Your task to perform on an android device: turn on data saver in the chrome app Image 0: 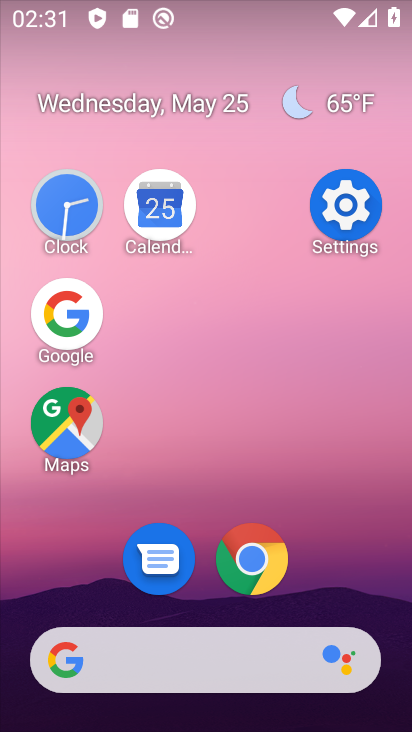
Step 0: click (280, 565)
Your task to perform on an android device: turn on data saver in the chrome app Image 1: 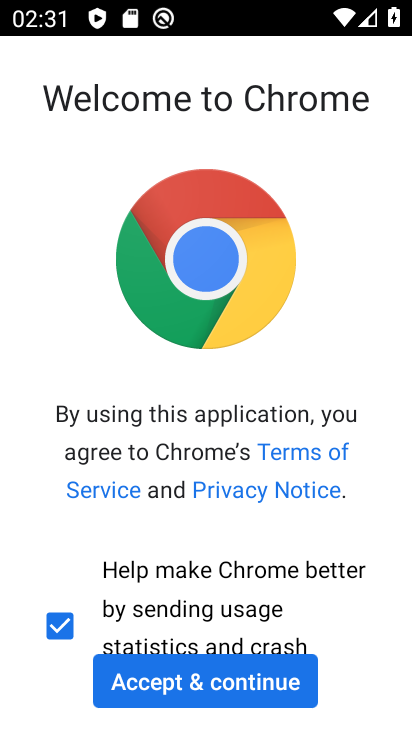
Step 1: click (268, 672)
Your task to perform on an android device: turn on data saver in the chrome app Image 2: 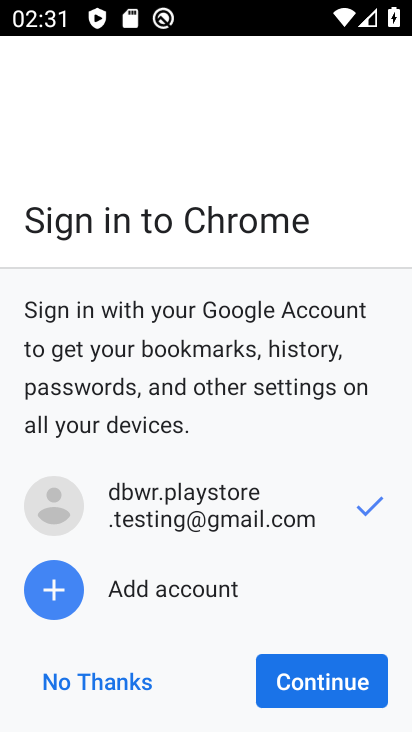
Step 2: click (347, 687)
Your task to perform on an android device: turn on data saver in the chrome app Image 3: 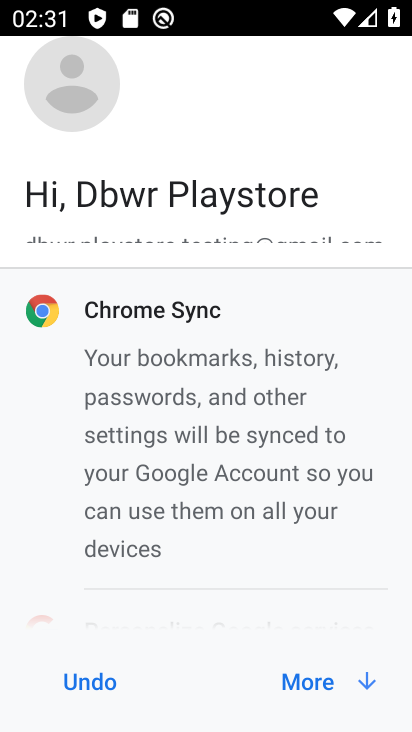
Step 3: click (338, 680)
Your task to perform on an android device: turn on data saver in the chrome app Image 4: 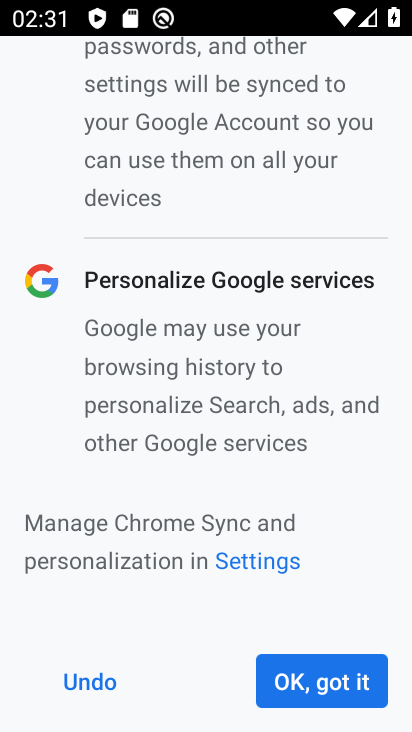
Step 4: click (338, 680)
Your task to perform on an android device: turn on data saver in the chrome app Image 5: 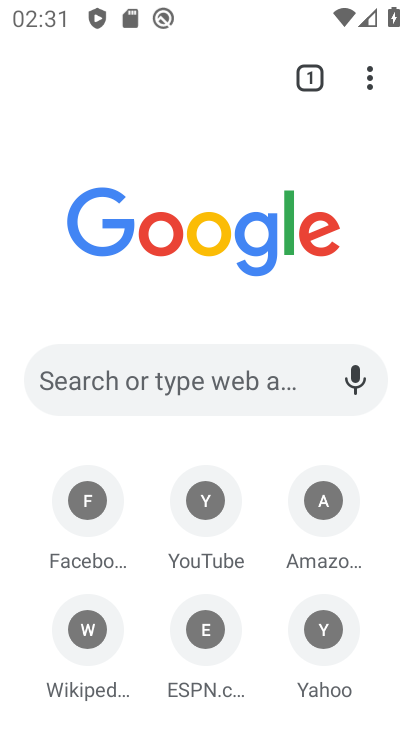
Step 5: click (370, 77)
Your task to perform on an android device: turn on data saver in the chrome app Image 6: 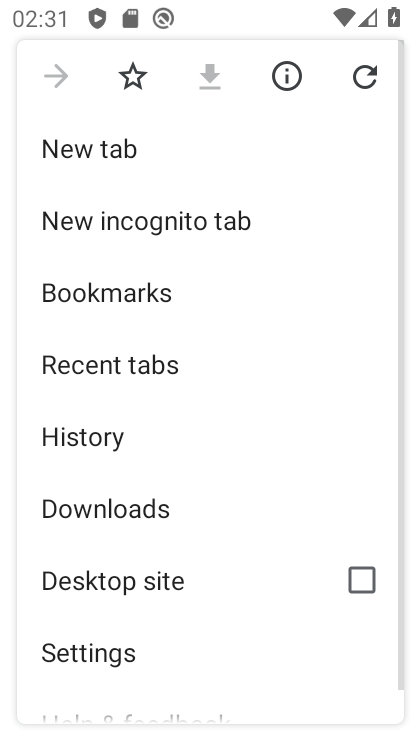
Step 6: drag from (234, 514) to (243, 241)
Your task to perform on an android device: turn on data saver in the chrome app Image 7: 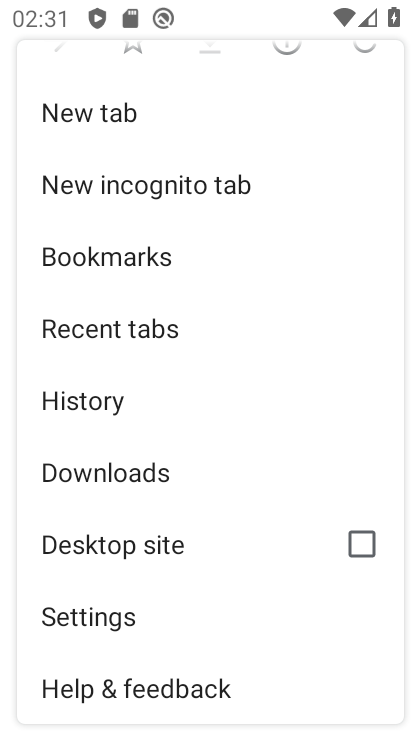
Step 7: click (139, 606)
Your task to perform on an android device: turn on data saver in the chrome app Image 8: 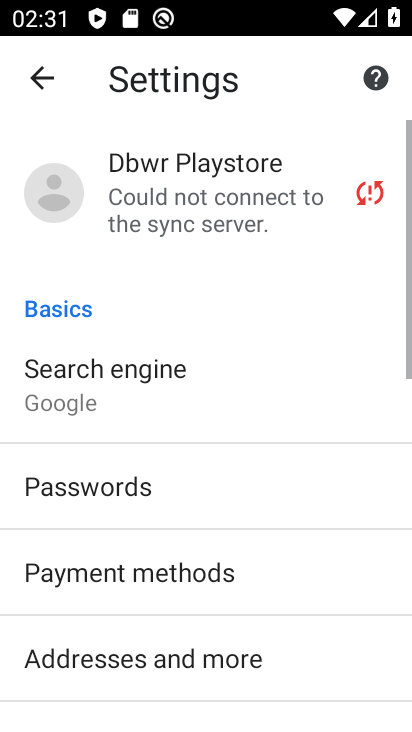
Step 8: drag from (230, 591) to (298, 208)
Your task to perform on an android device: turn on data saver in the chrome app Image 9: 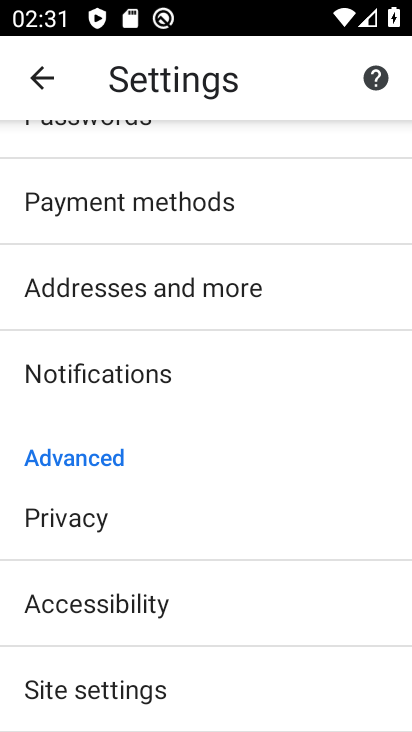
Step 9: drag from (210, 617) to (249, 183)
Your task to perform on an android device: turn on data saver in the chrome app Image 10: 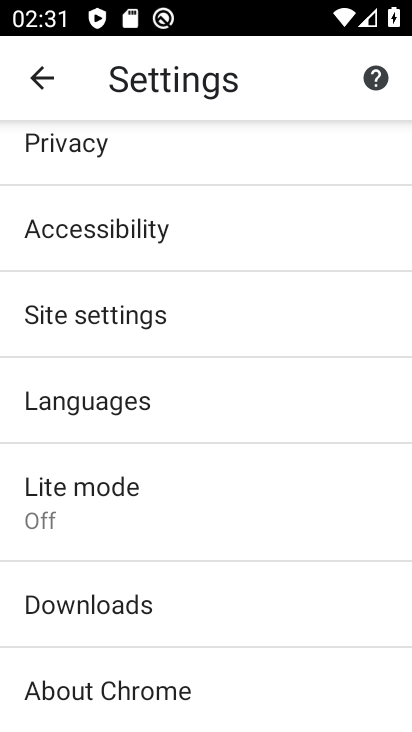
Step 10: click (200, 483)
Your task to perform on an android device: turn on data saver in the chrome app Image 11: 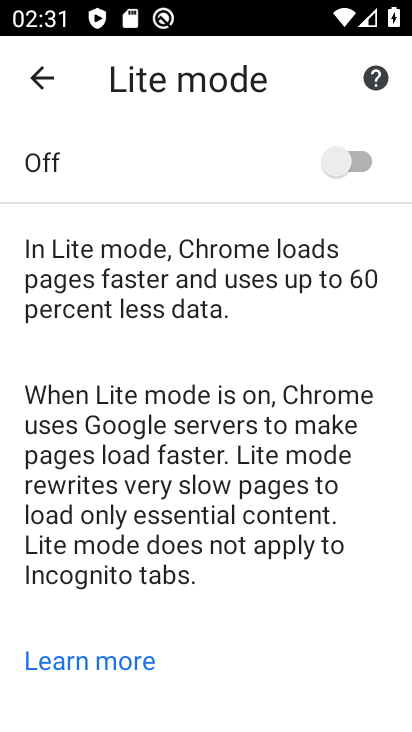
Step 11: click (326, 140)
Your task to perform on an android device: turn on data saver in the chrome app Image 12: 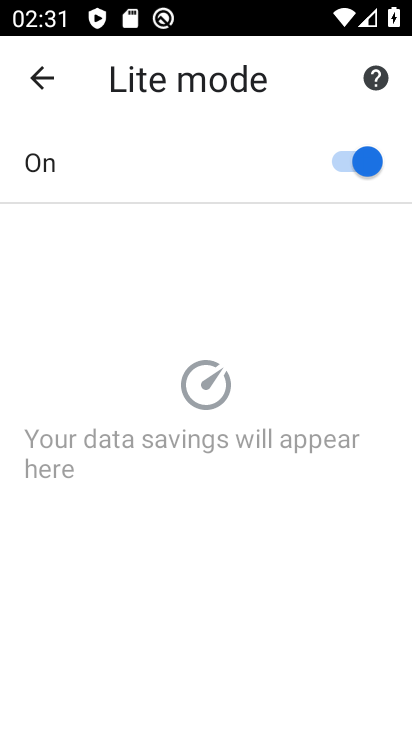
Step 12: task complete